Your task to perform on an android device: turn on data saver in the chrome app Image 0: 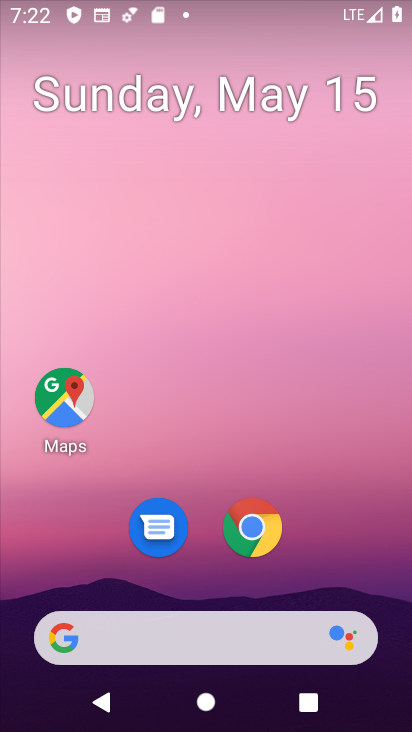
Step 0: drag from (372, 472) to (330, 5)
Your task to perform on an android device: turn on data saver in the chrome app Image 1: 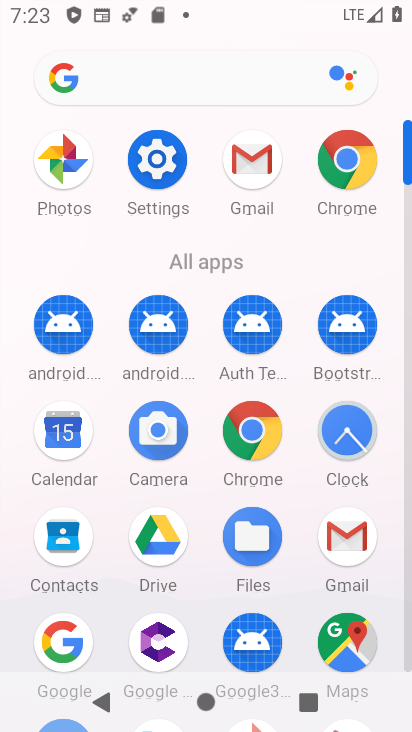
Step 1: click (360, 176)
Your task to perform on an android device: turn on data saver in the chrome app Image 2: 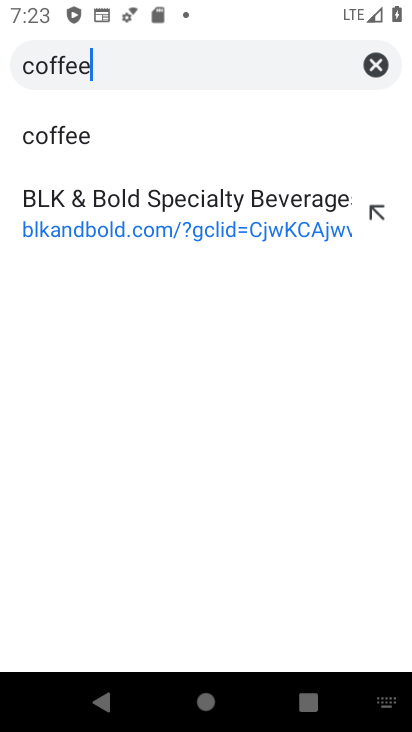
Step 2: click (372, 65)
Your task to perform on an android device: turn on data saver in the chrome app Image 3: 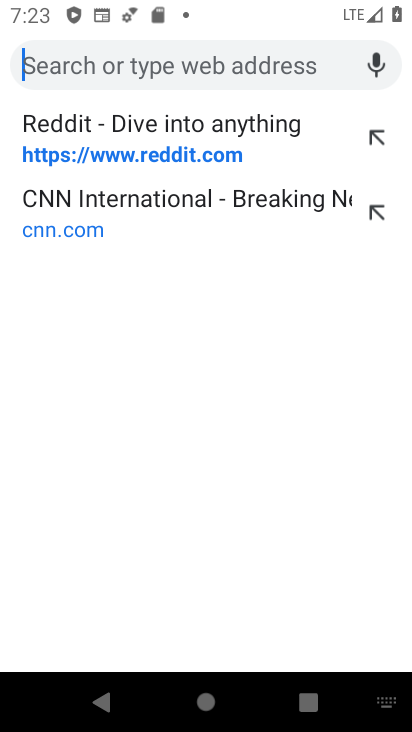
Step 3: press home button
Your task to perform on an android device: turn on data saver in the chrome app Image 4: 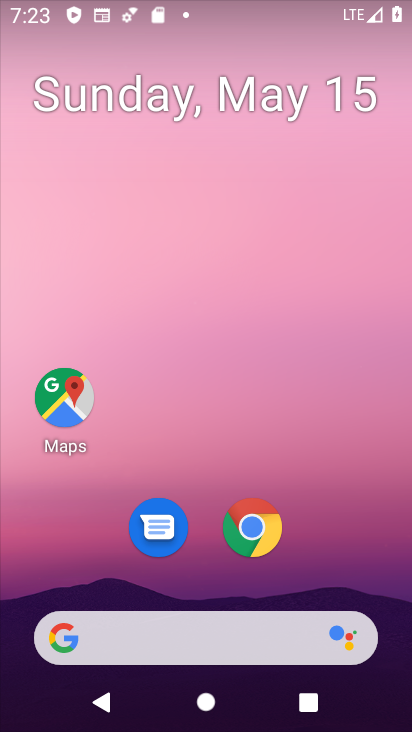
Step 4: drag from (346, 530) to (339, 2)
Your task to perform on an android device: turn on data saver in the chrome app Image 5: 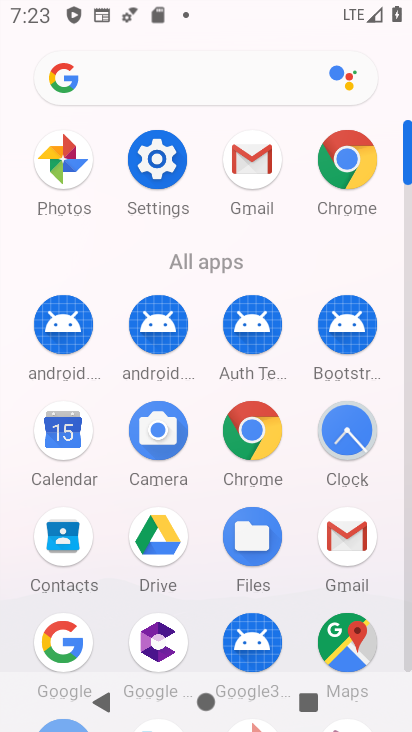
Step 5: click (327, 209)
Your task to perform on an android device: turn on data saver in the chrome app Image 6: 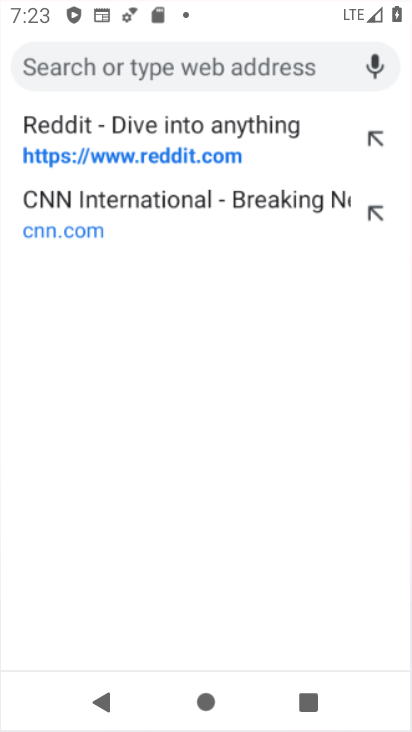
Step 6: click (342, 177)
Your task to perform on an android device: turn on data saver in the chrome app Image 7: 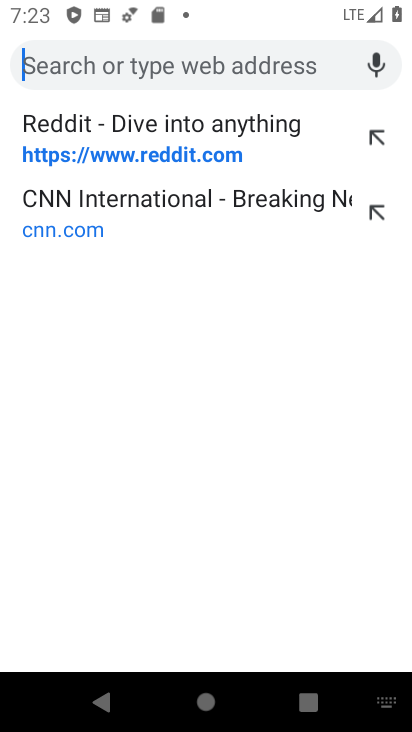
Step 7: press back button
Your task to perform on an android device: turn on data saver in the chrome app Image 8: 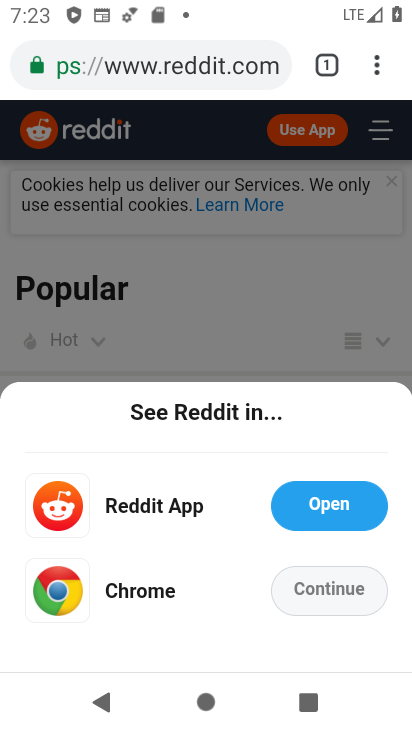
Step 8: drag from (372, 76) to (166, 580)
Your task to perform on an android device: turn on data saver in the chrome app Image 9: 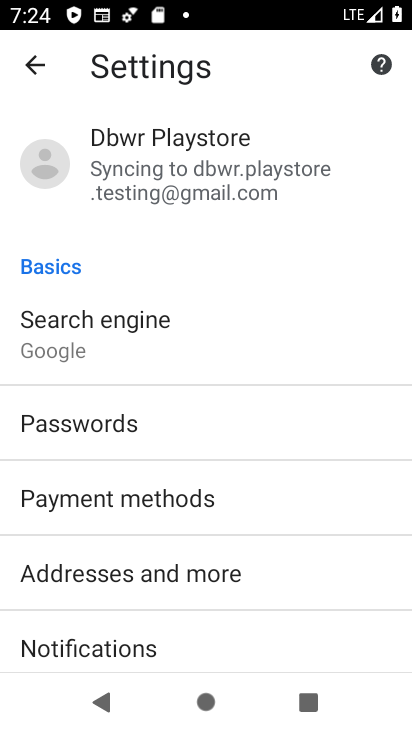
Step 9: drag from (193, 607) to (201, 221)
Your task to perform on an android device: turn on data saver in the chrome app Image 10: 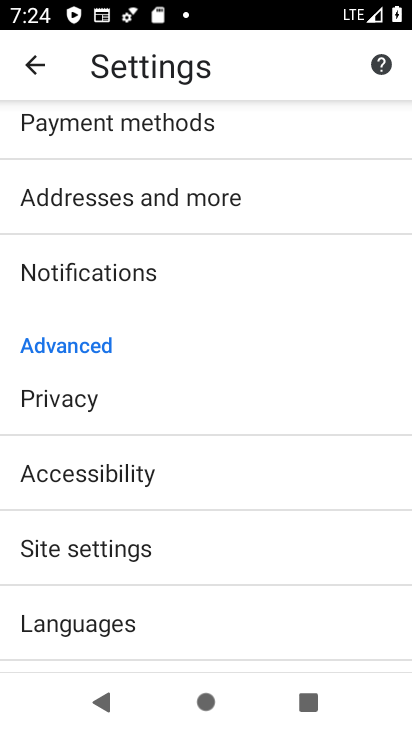
Step 10: click (128, 624)
Your task to perform on an android device: turn on data saver in the chrome app Image 11: 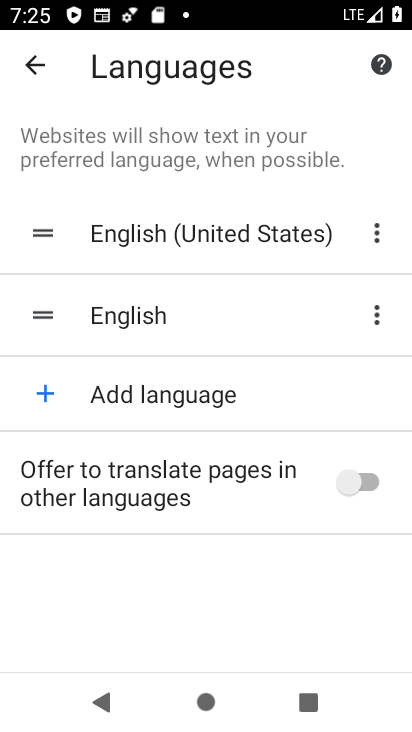
Step 11: click (353, 485)
Your task to perform on an android device: turn on data saver in the chrome app Image 12: 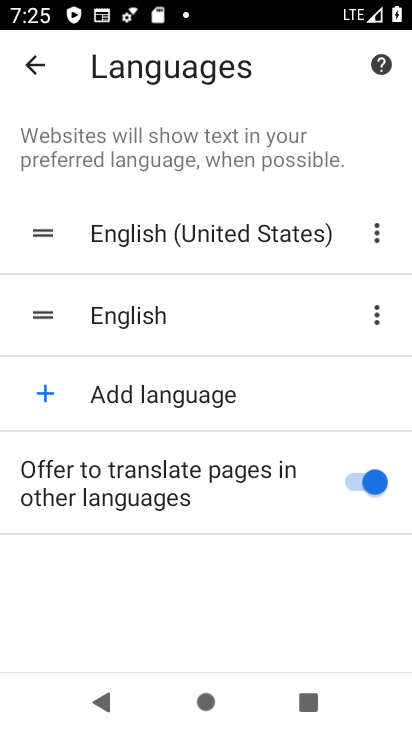
Step 12: task complete